Your task to perform on an android device: Show me recent news Image 0: 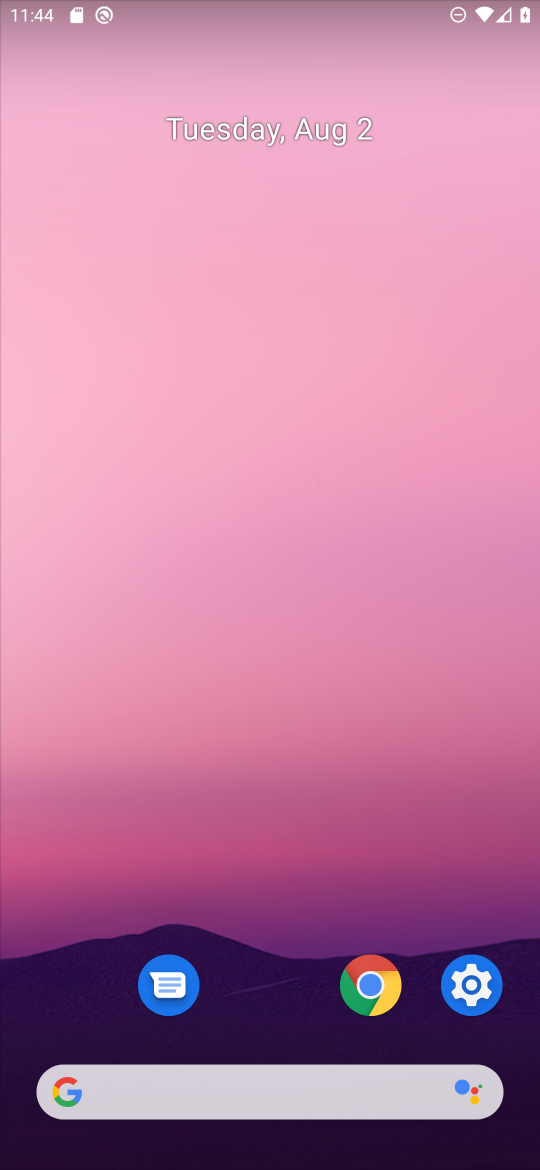
Step 0: press home button
Your task to perform on an android device: Show me recent news Image 1: 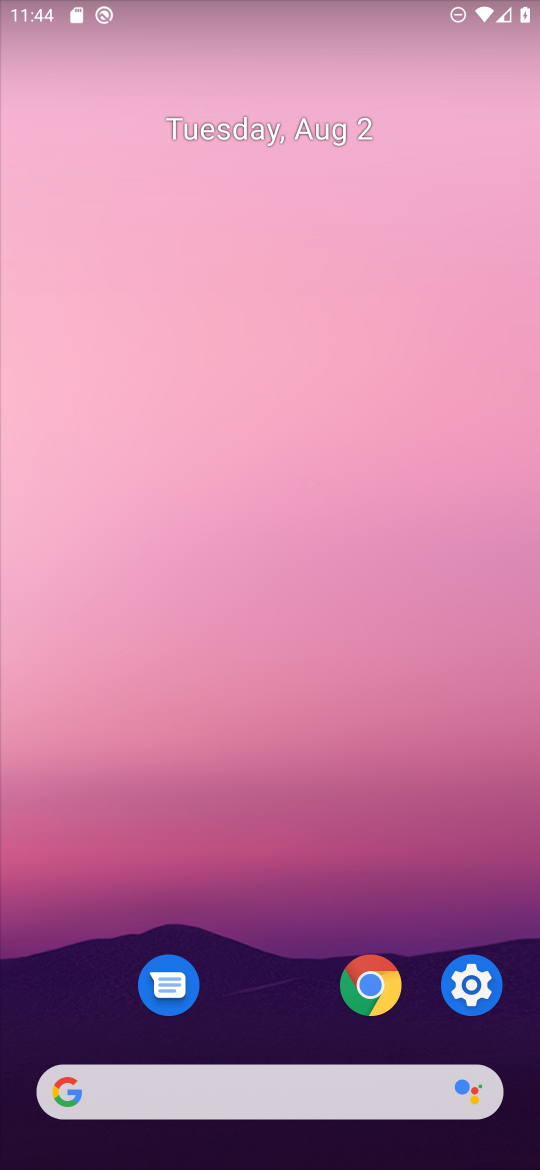
Step 1: click (294, 1103)
Your task to perform on an android device: Show me recent news Image 2: 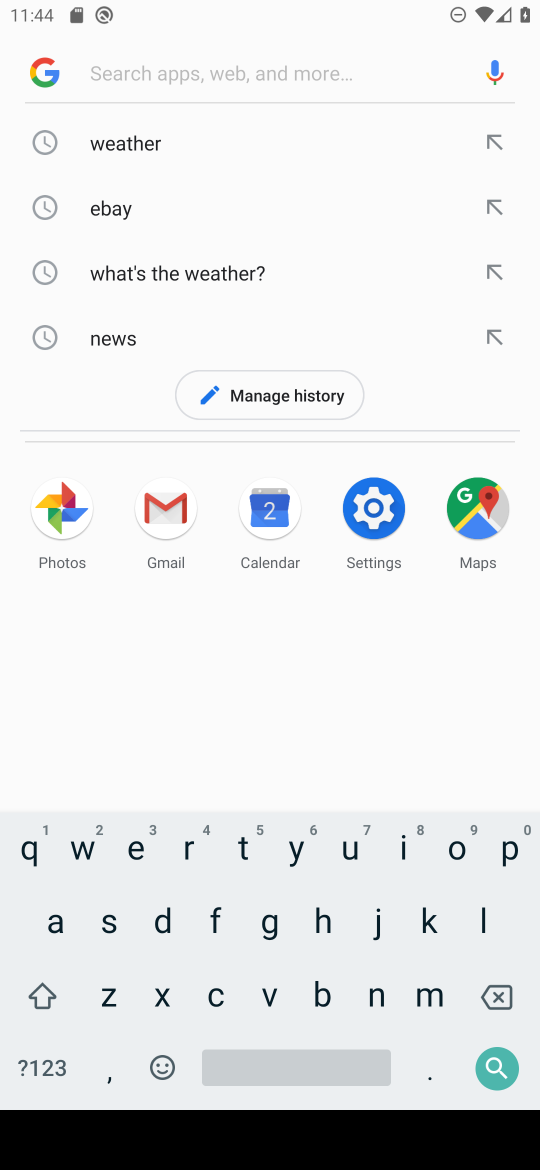
Step 2: click (193, 835)
Your task to perform on an android device: Show me recent news Image 3: 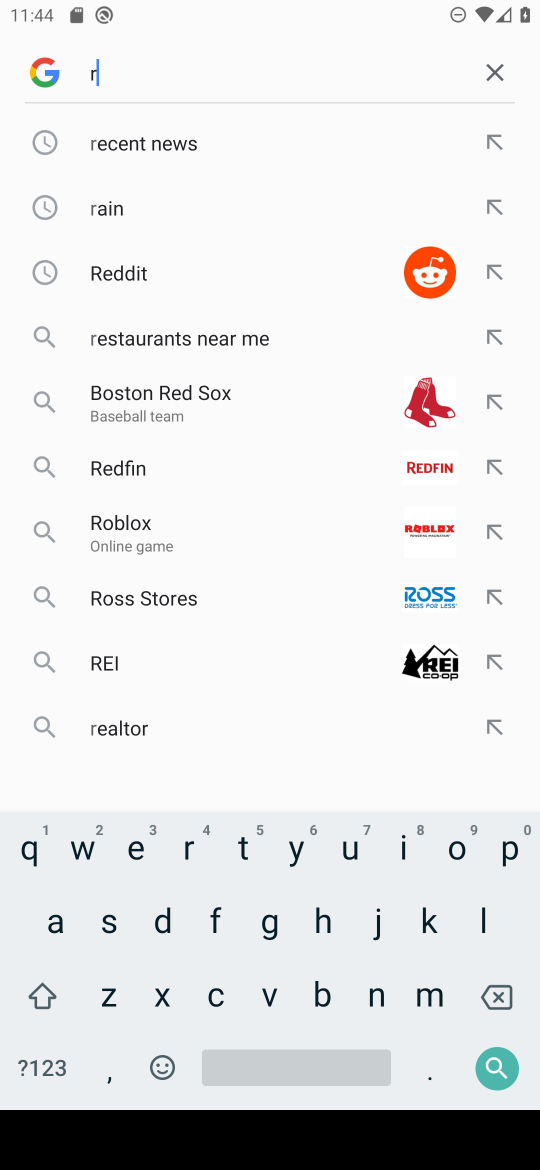
Step 3: click (183, 146)
Your task to perform on an android device: Show me recent news Image 4: 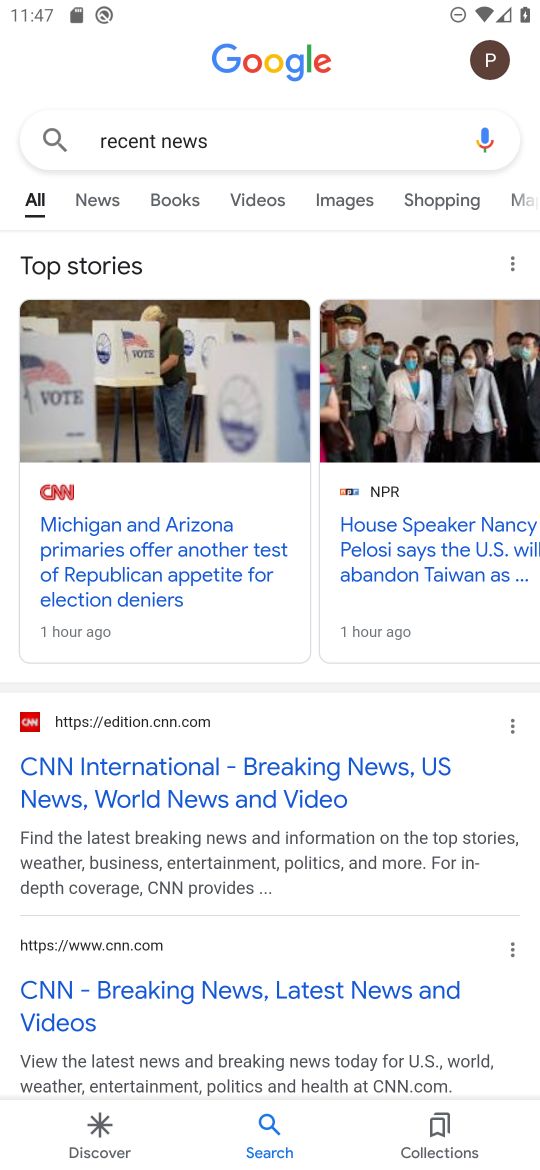
Step 4: task complete